Your task to perform on an android device: make emails show in primary in the gmail app Image 0: 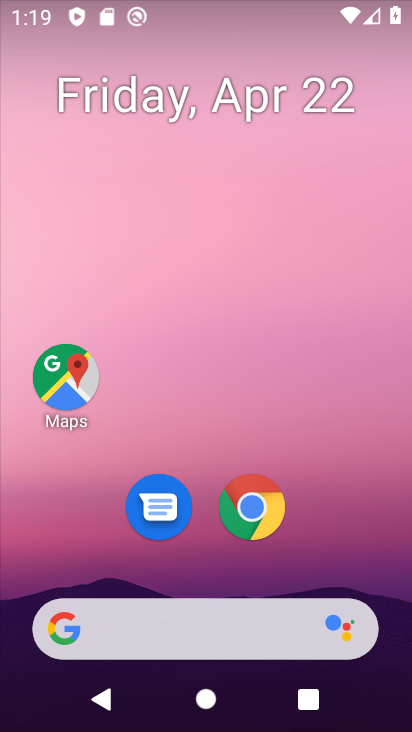
Step 0: drag from (150, 625) to (270, 47)
Your task to perform on an android device: make emails show in primary in the gmail app Image 1: 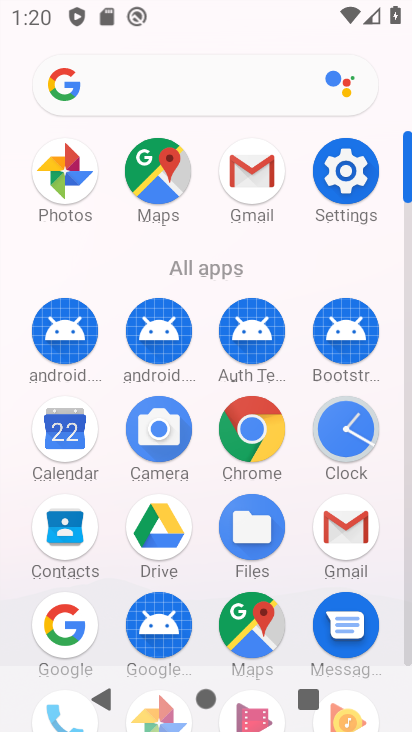
Step 1: click (260, 191)
Your task to perform on an android device: make emails show in primary in the gmail app Image 2: 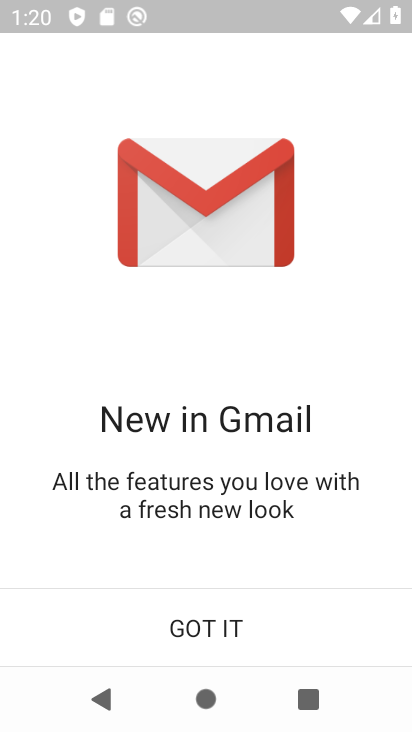
Step 2: click (218, 638)
Your task to perform on an android device: make emails show in primary in the gmail app Image 3: 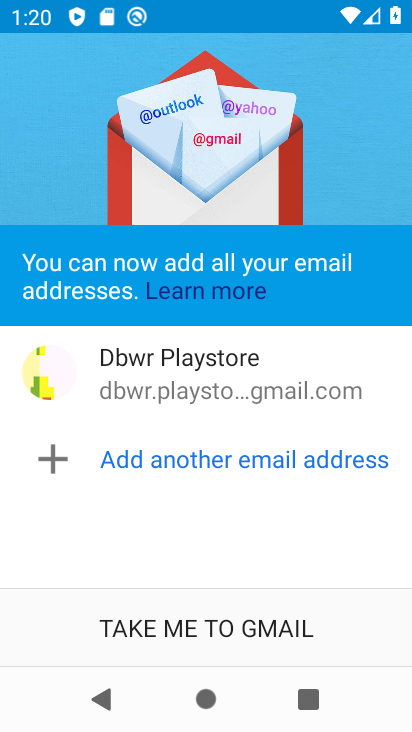
Step 3: click (220, 635)
Your task to perform on an android device: make emails show in primary in the gmail app Image 4: 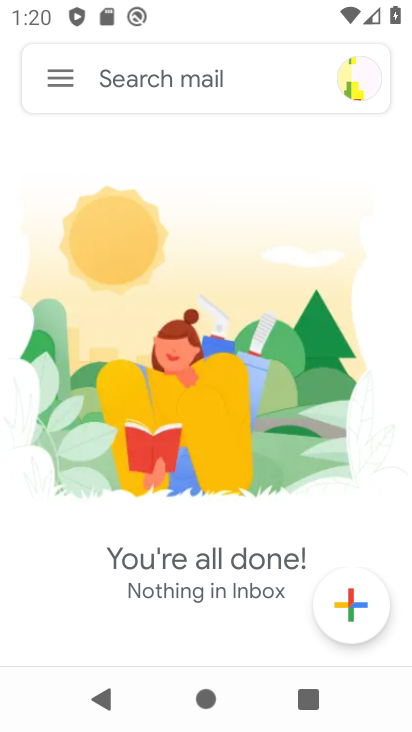
Step 4: click (65, 80)
Your task to perform on an android device: make emails show in primary in the gmail app Image 5: 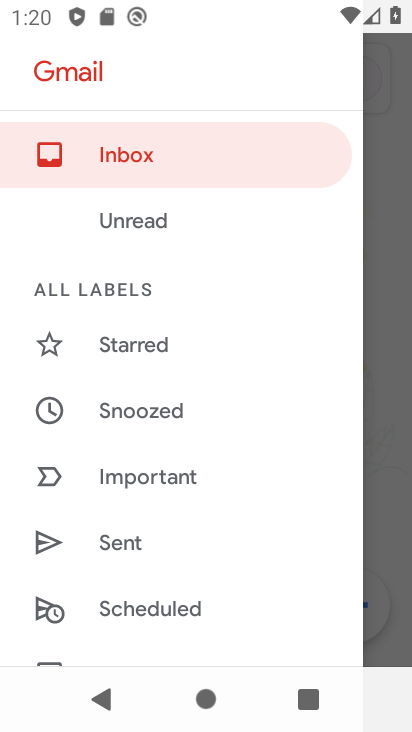
Step 5: drag from (112, 573) to (220, 138)
Your task to perform on an android device: make emails show in primary in the gmail app Image 6: 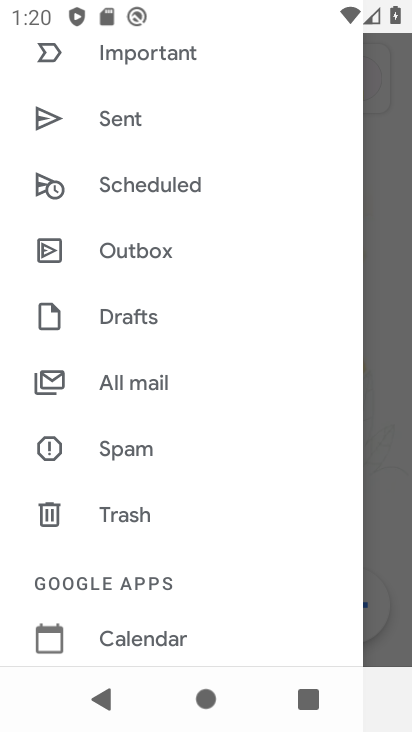
Step 6: drag from (166, 607) to (216, 222)
Your task to perform on an android device: make emails show in primary in the gmail app Image 7: 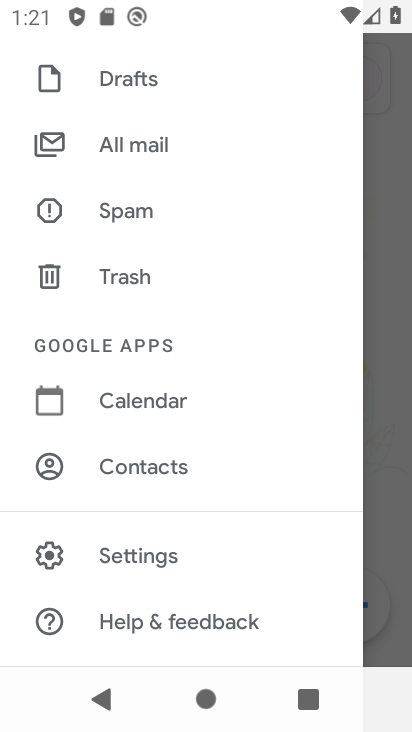
Step 7: click (131, 554)
Your task to perform on an android device: make emails show in primary in the gmail app Image 8: 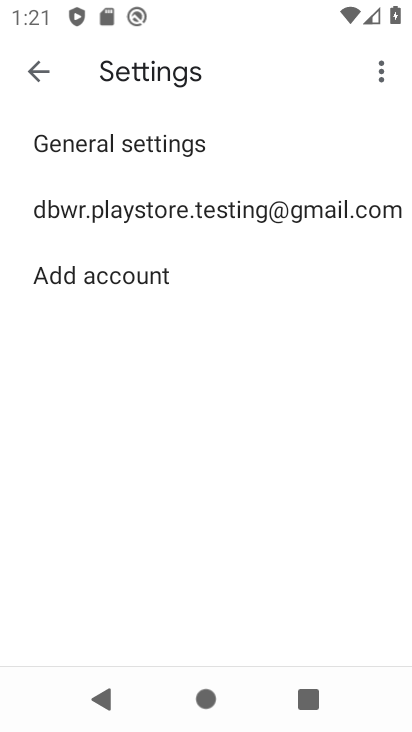
Step 8: click (244, 214)
Your task to perform on an android device: make emails show in primary in the gmail app Image 9: 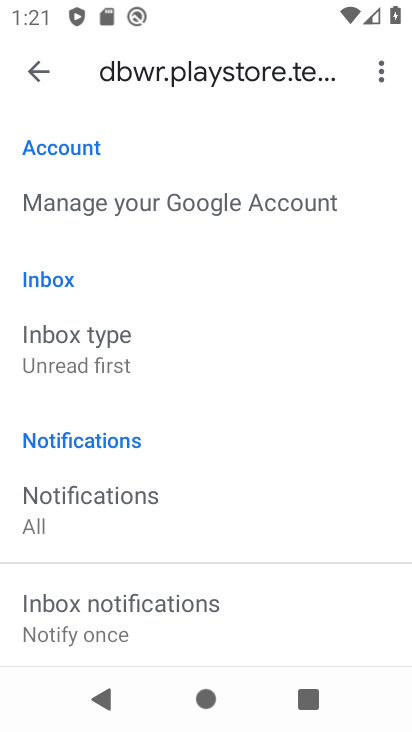
Step 9: task complete